Your task to perform on an android device: Open location settings Image 0: 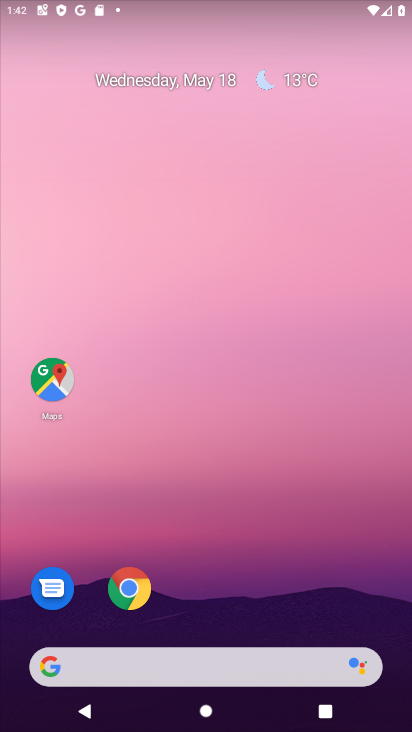
Step 0: drag from (175, 625) to (221, 93)
Your task to perform on an android device: Open location settings Image 1: 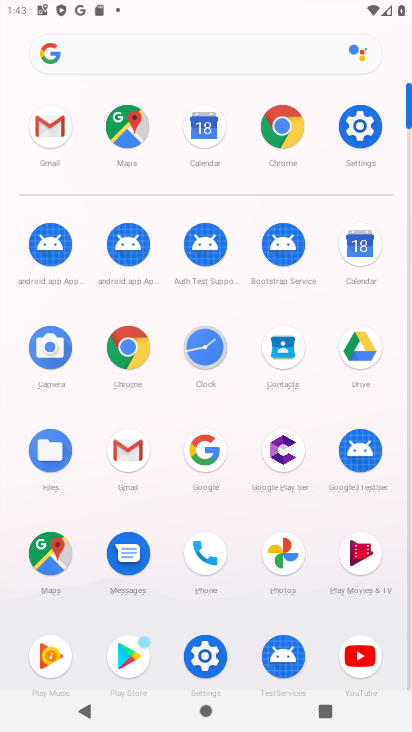
Step 1: click (203, 659)
Your task to perform on an android device: Open location settings Image 2: 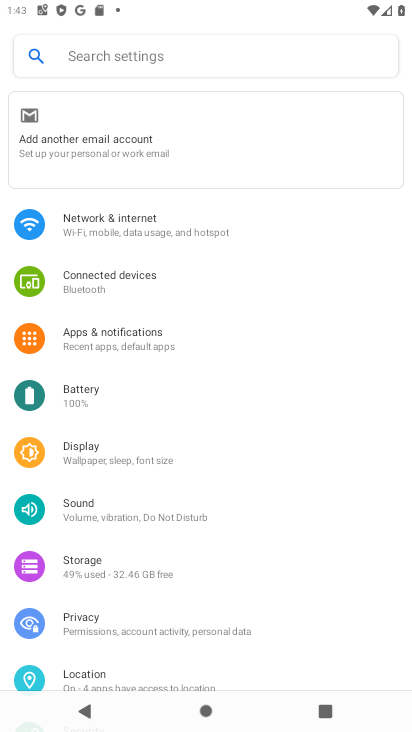
Step 2: click (110, 685)
Your task to perform on an android device: Open location settings Image 3: 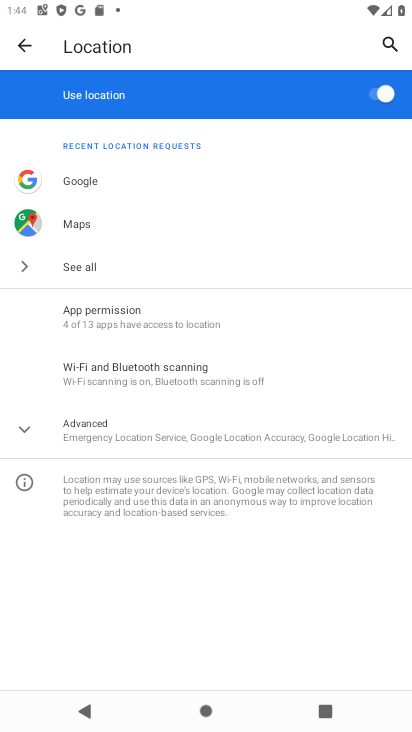
Step 3: drag from (257, 549) to (276, 257)
Your task to perform on an android device: Open location settings Image 4: 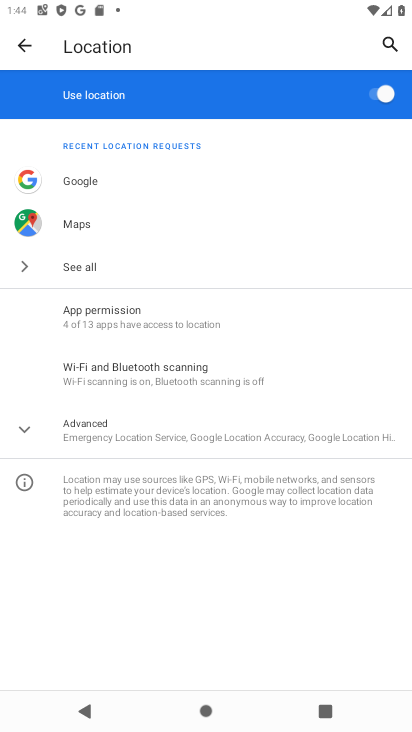
Step 4: click (110, 423)
Your task to perform on an android device: Open location settings Image 5: 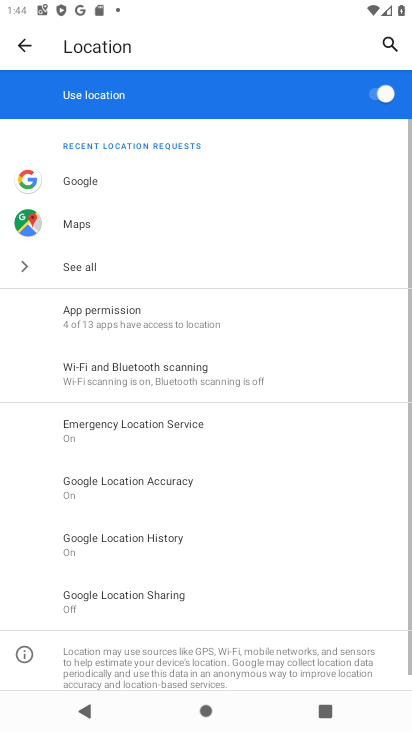
Step 5: task complete